Your task to perform on an android device: Go to Reddit.com Image 0: 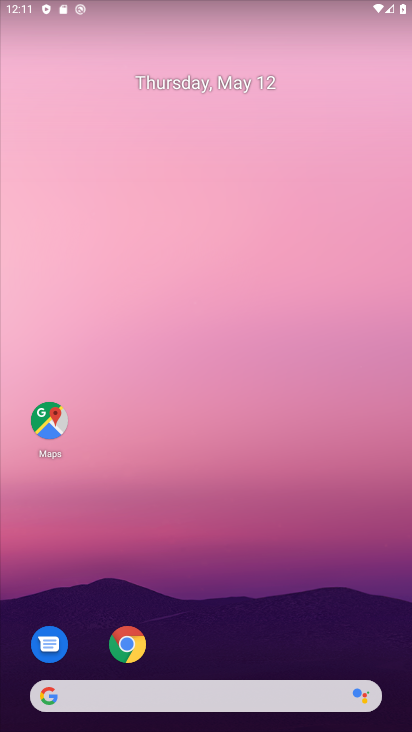
Step 0: click (134, 638)
Your task to perform on an android device: Go to Reddit.com Image 1: 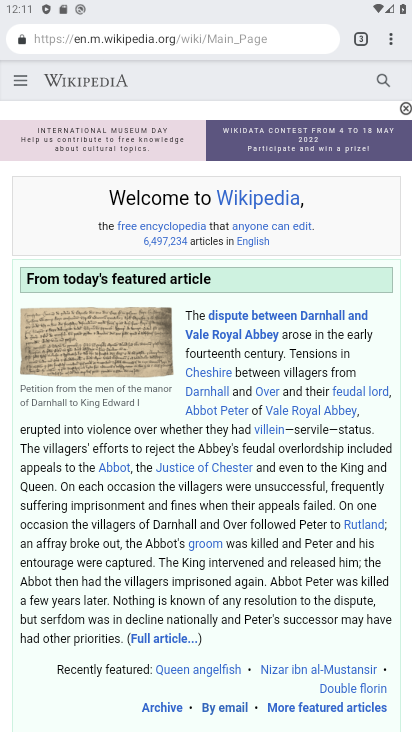
Step 1: click (356, 37)
Your task to perform on an android device: Go to Reddit.com Image 2: 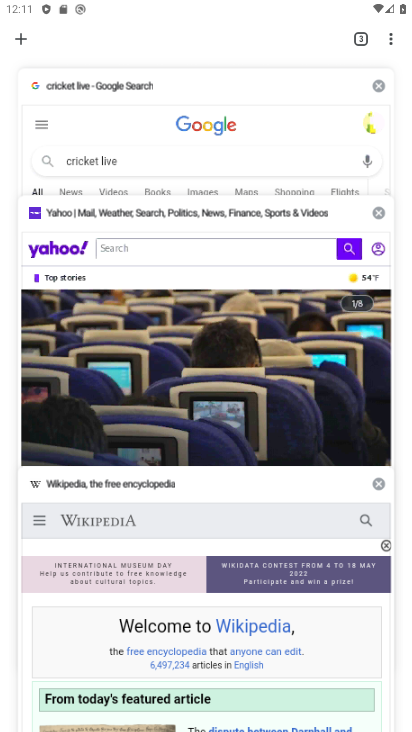
Step 2: click (15, 47)
Your task to perform on an android device: Go to Reddit.com Image 3: 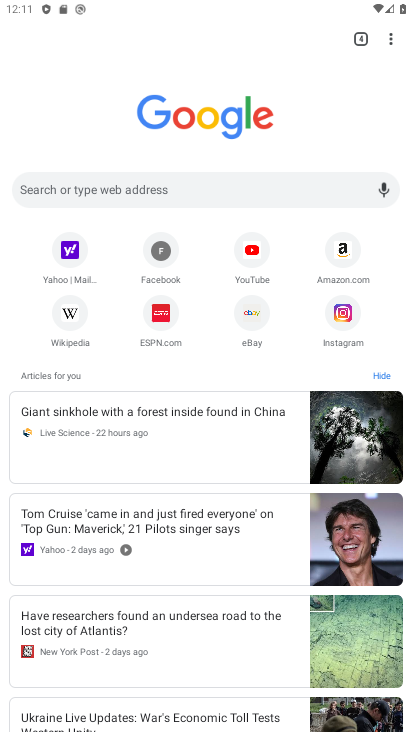
Step 3: click (183, 184)
Your task to perform on an android device: Go to Reddit.com Image 4: 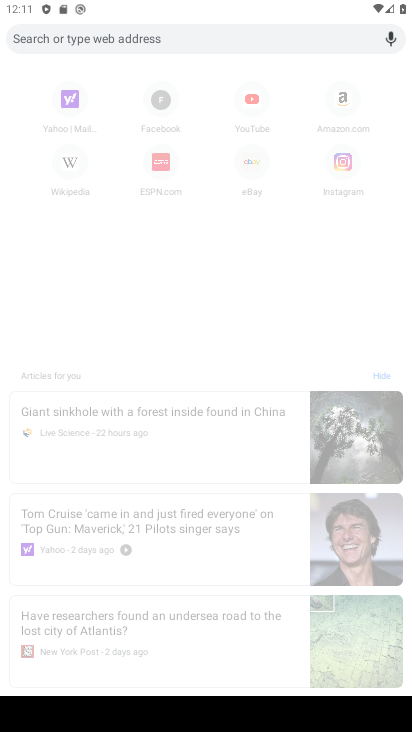
Step 4: type "Reddit.com"
Your task to perform on an android device: Go to Reddit.com Image 5: 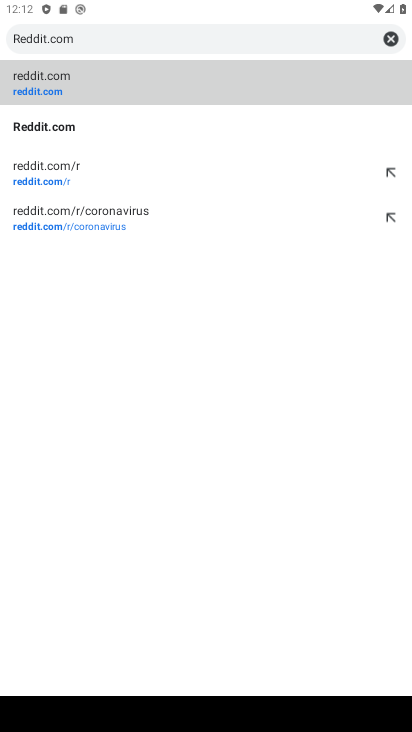
Step 5: click (65, 90)
Your task to perform on an android device: Go to Reddit.com Image 6: 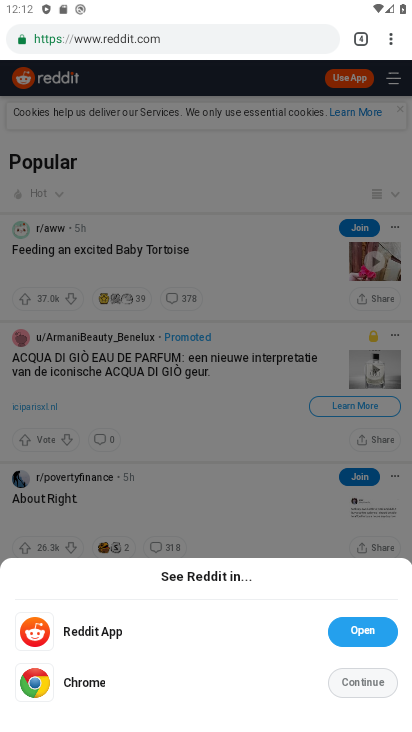
Step 6: task complete